Your task to perform on an android device: find snoozed emails in the gmail app Image 0: 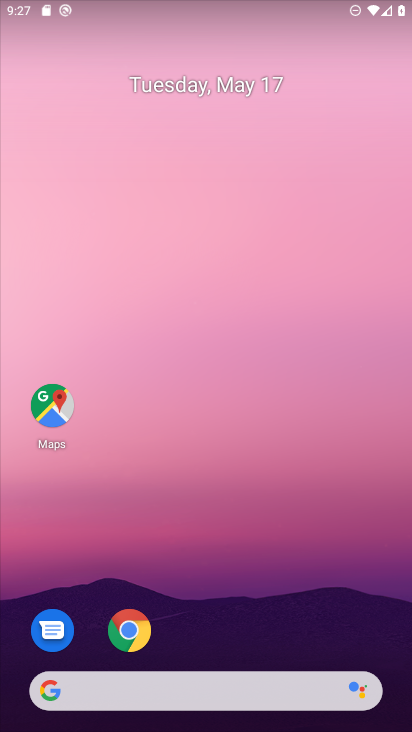
Step 0: drag from (354, 612) to (350, 172)
Your task to perform on an android device: find snoozed emails in the gmail app Image 1: 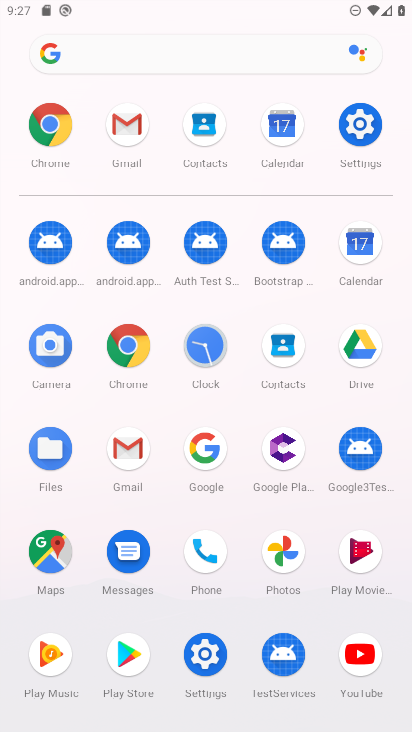
Step 1: click (126, 466)
Your task to perform on an android device: find snoozed emails in the gmail app Image 2: 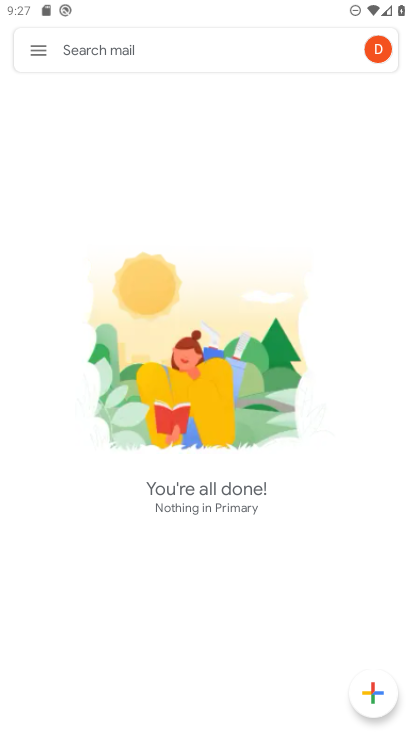
Step 2: click (32, 53)
Your task to perform on an android device: find snoozed emails in the gmail app Image 3: 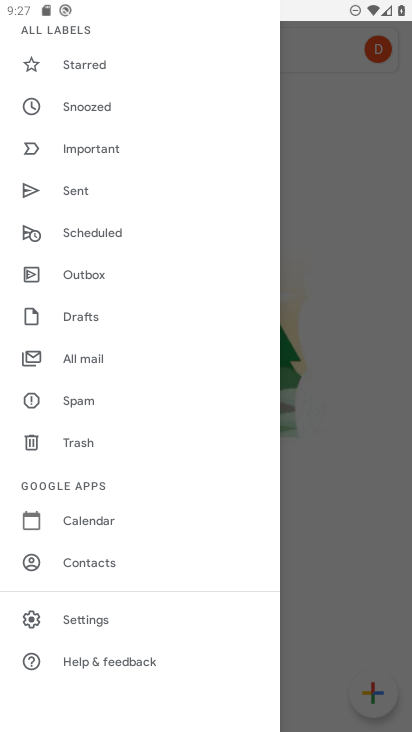
Step 3: drag from (203, 650) to (232, 474)
Your task to perform on an android device: find snoozed emails in the gmail app Image 4: 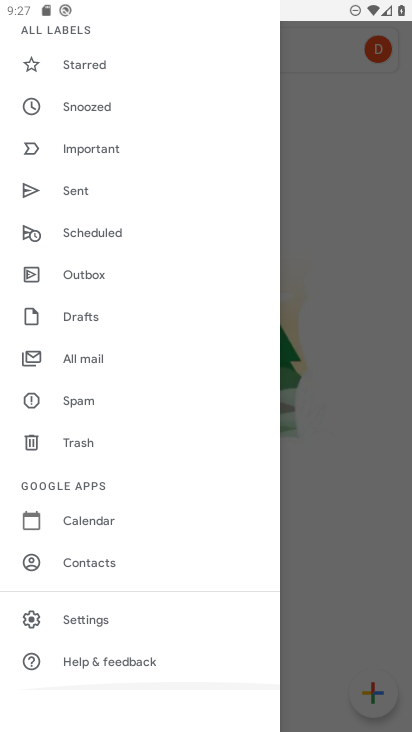
Step 4: drag from (225, 302) to (217, 426)
Your task to perform on an android device: find snoozed emails in the gmail app Image 5: 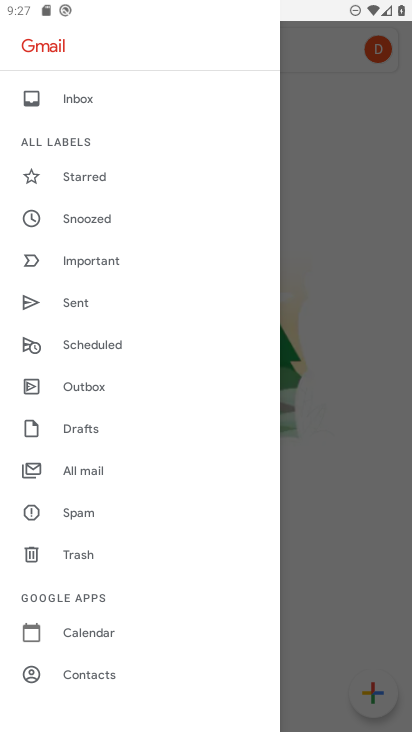
Step 5: drag from (217, 255) to (193, 433)
Your task to perform on an android device: find snoozed emails in the gmail app Image 6: 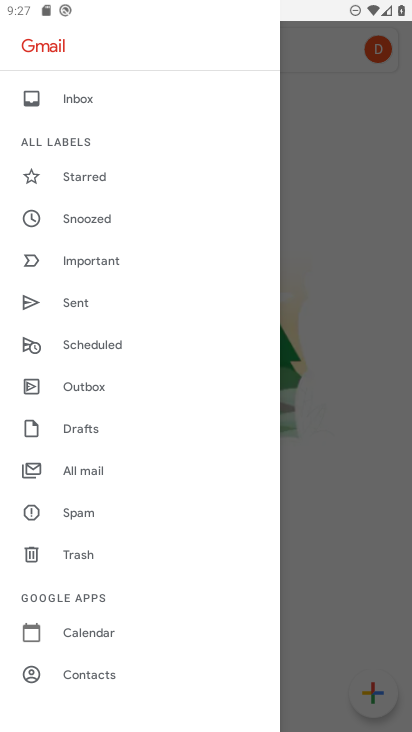
Step 6: click (118, 215)
Your task to perform on an android device: find snoozed emails in the gmail app Image 7: 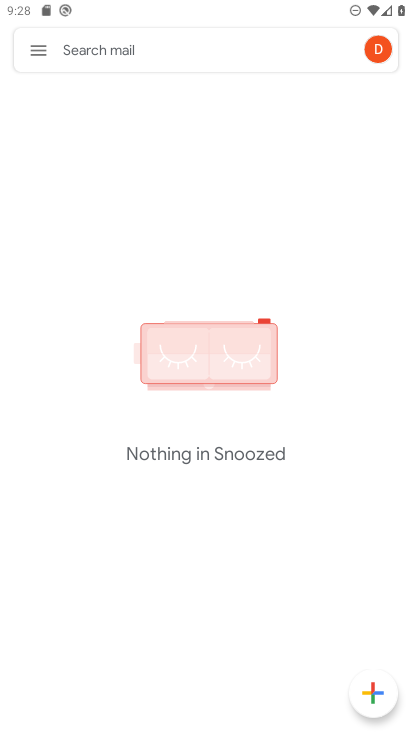
Step 7: task complete